Your task to perform on an android device: What's the weather going to be this weekend? Image 0: 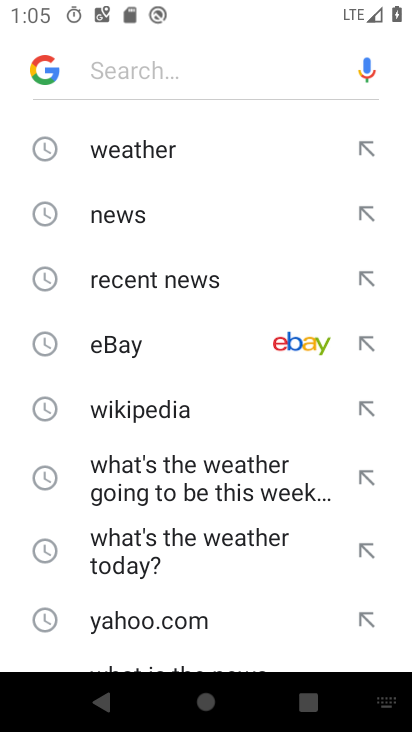
Step 0: press home button
Your task to perform on an android device: What's the weather going to be this weekend? Image 1: 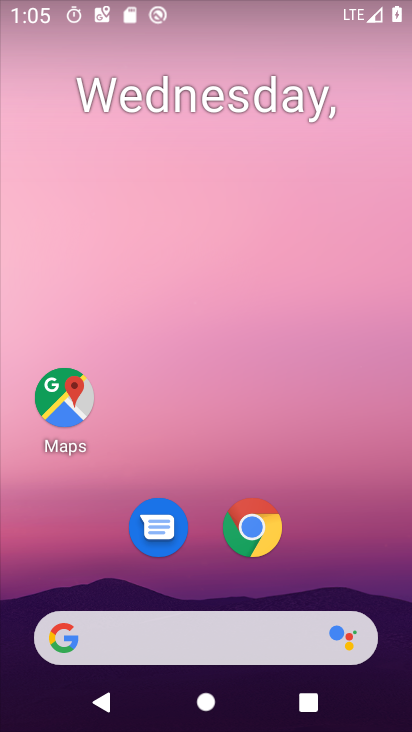
Step 1: drag from (10, 236) to (408, 252)
Your task to perform on an android device: What's the weather going to be this weekend? Image 2: 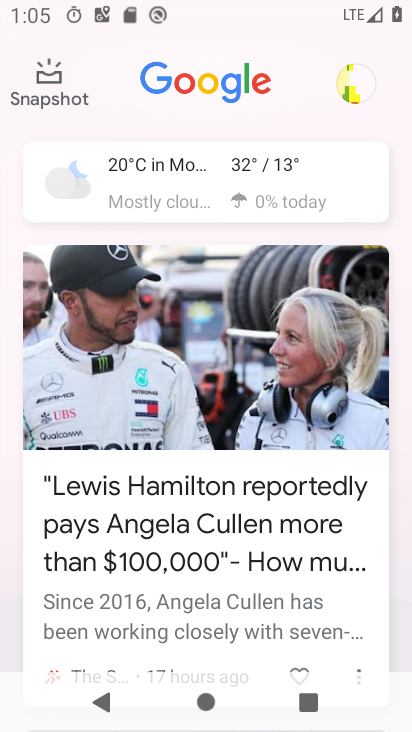
Step 2: click (221, 180)
Your task to perform on an android device: What's the weather going to be this weekend? Image 3: 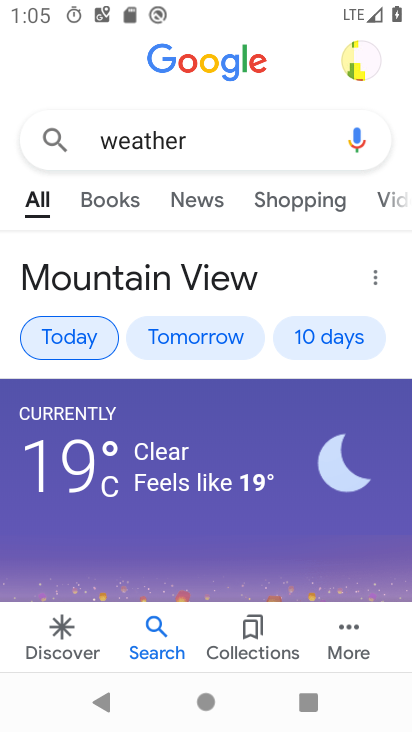
Step 3: click (327, 337)
Your task to perform on an android device: What's the weather going to be this weekend? Image 4: 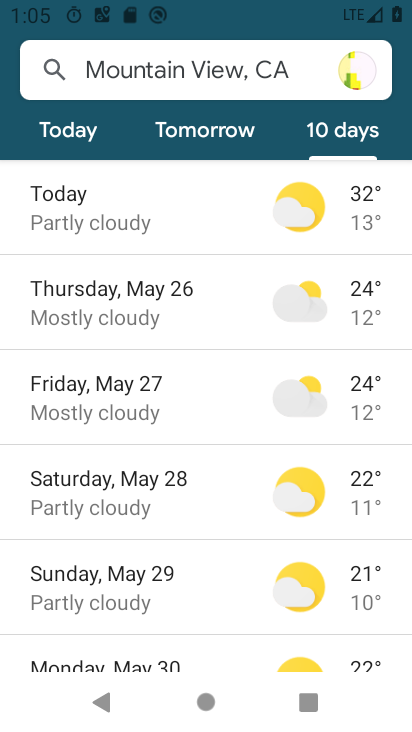
Step 4: task complete